Your task to perform on an android device: toggle location history Image 0: 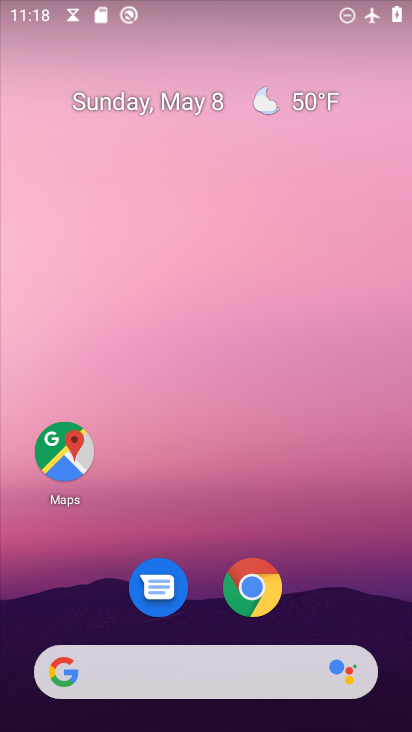
Step 0: drag from (316, 599) to (255, 214)
Your task to perform on an android device: toggle location history Image 1: 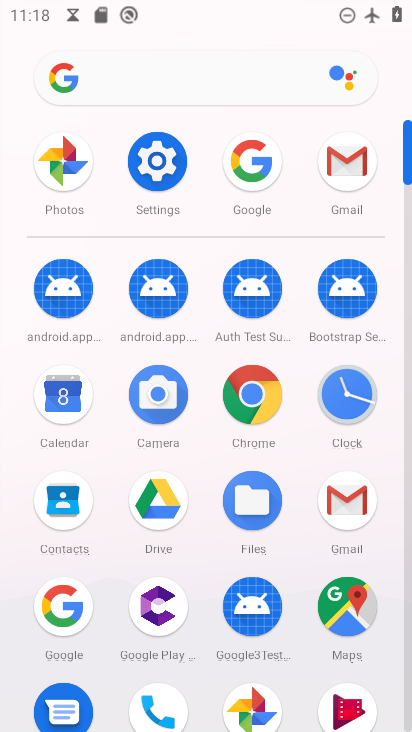
Step 1: click (154, 158)
Your task to perform on an android device: toggle location history Image 2: 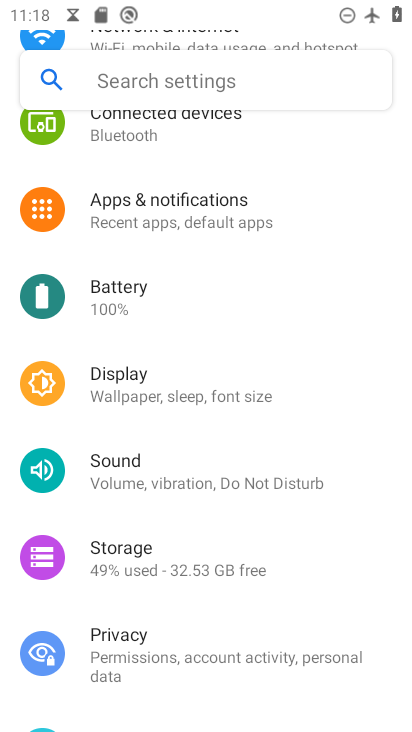
Step 2: drag from (200, 651) to (223, 364)
Your task to perform on an android device: toggle location history Image 3: 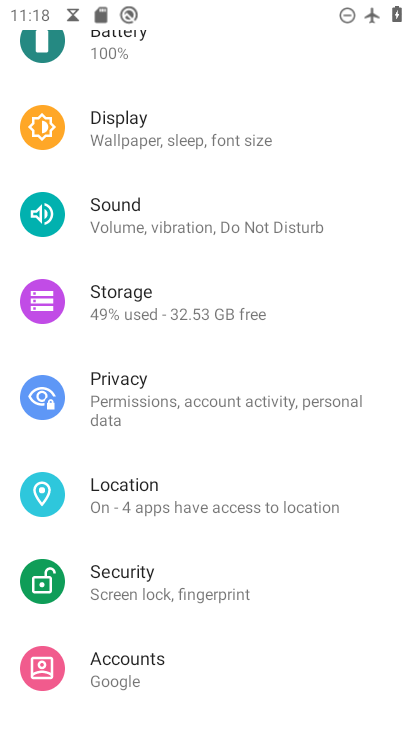
Step 3: click (146, 497)
Your task to perform on an android device: toggle location history Image 4: 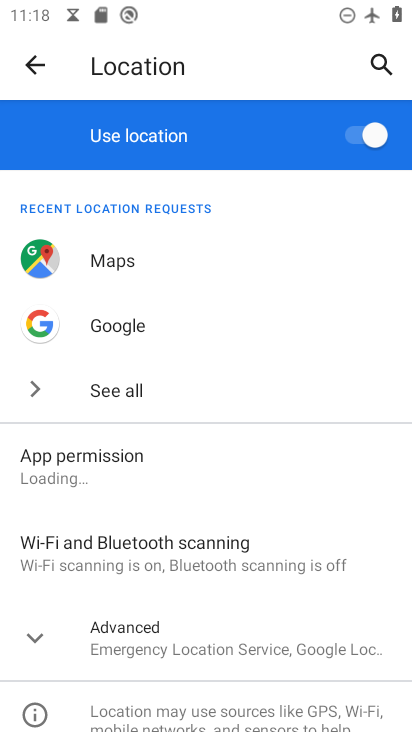
Step 4: click (163, 638)
Your task to perform on an android device: toggle location history Image 5: 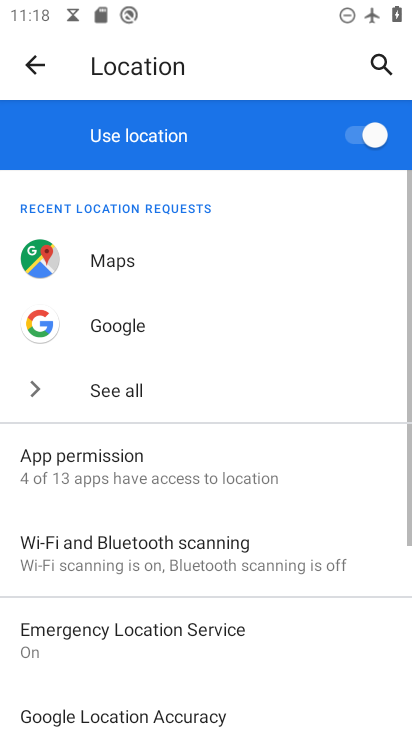
Step 5: drag from (141, 668) to (151, 373)
Your task to perform on an android device: toggle location history Image 6: 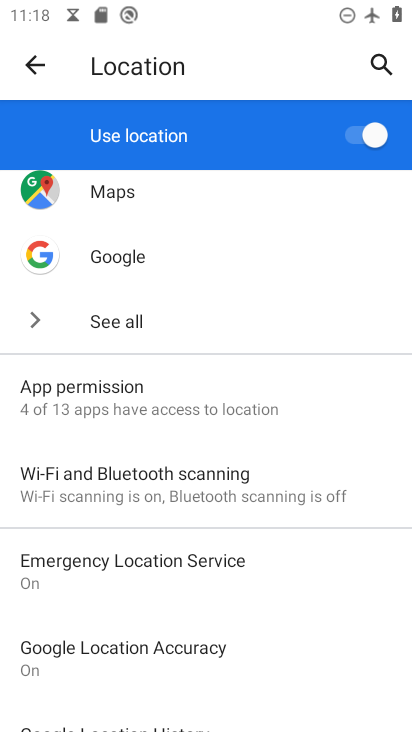
Step 6: drag from (196, 695) to (218, 470)
Your task to perform on an android device: toggle location history Image 7: 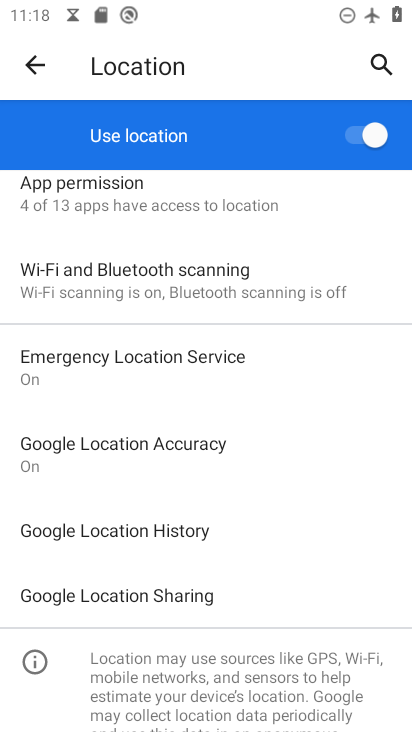
Step 7: click (143, 528)
Your task to perform on an android device: toggle location history Image 8: 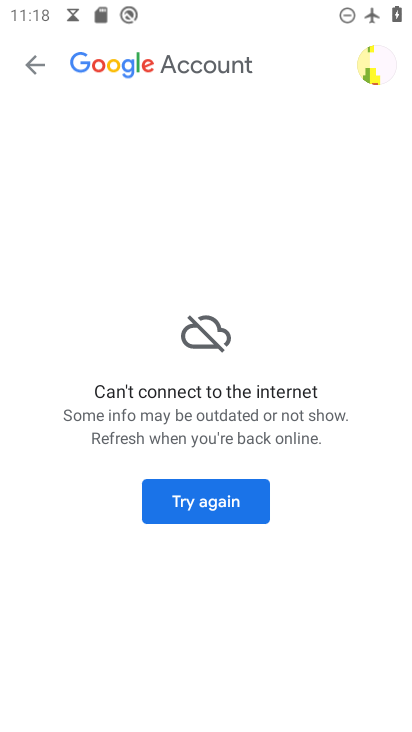
Step 8: click (223, 500)
Your task to perform on an android device: toggle location history Image 9: 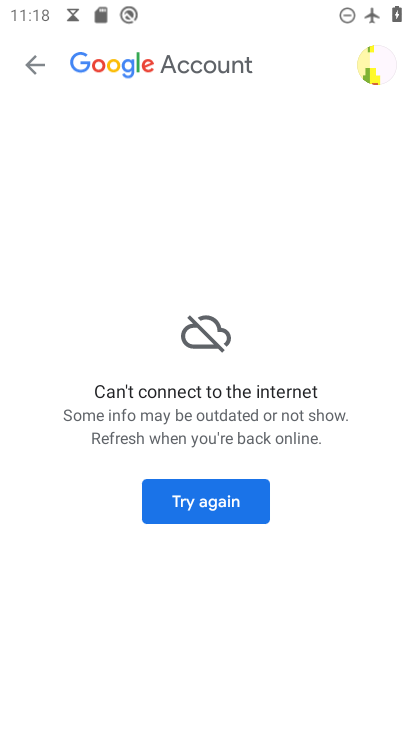
Step 9: click (223, 500)
Your task to perform on an android device: toggle location history Image 10: 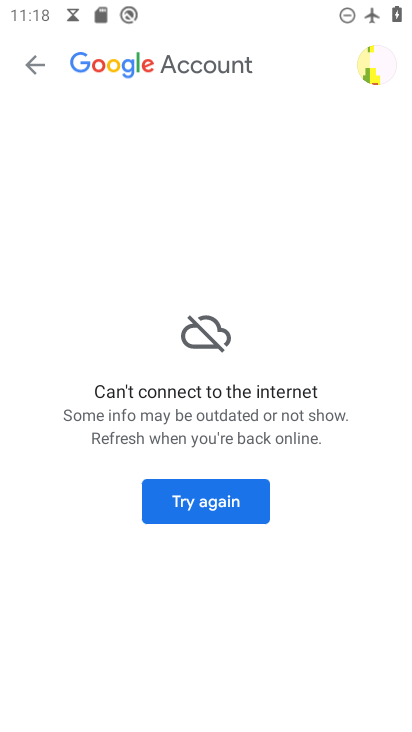
Step 10: task complete